Your task to perform on an android device: What's the weather like in Chicago? Image 0: 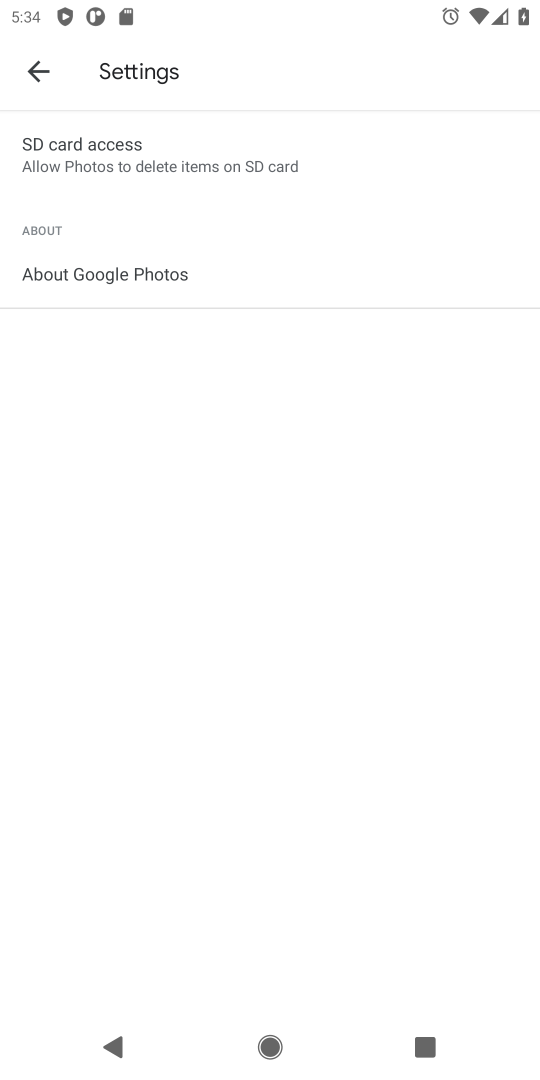
Step 0: press home button
Your task to perform on an android device: What's the weather like in Chicago? Image 1: 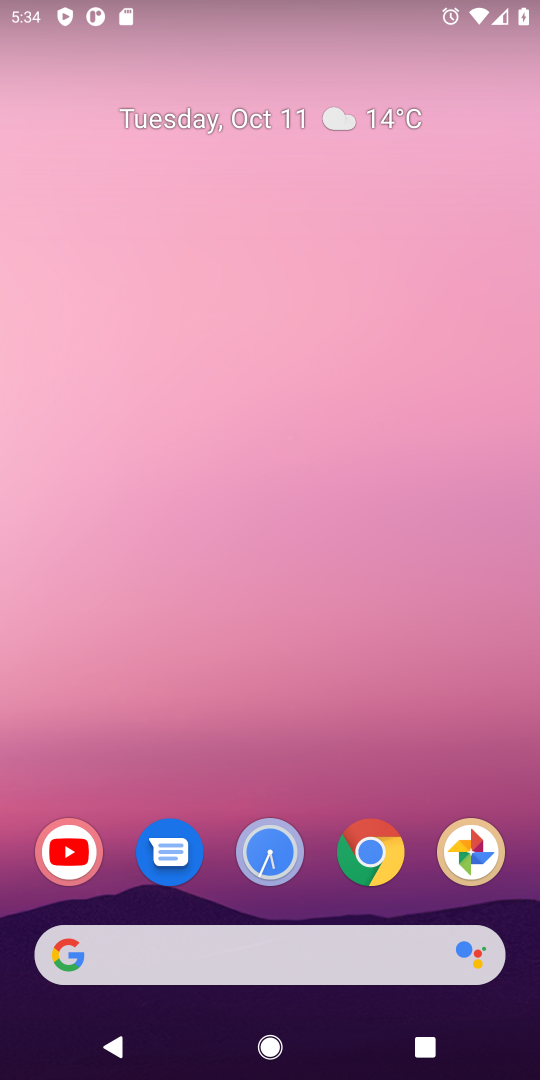
Step 1: click (391, 866)
Your task to perform on an android device: What's the weather like in Chicago? Image 2: 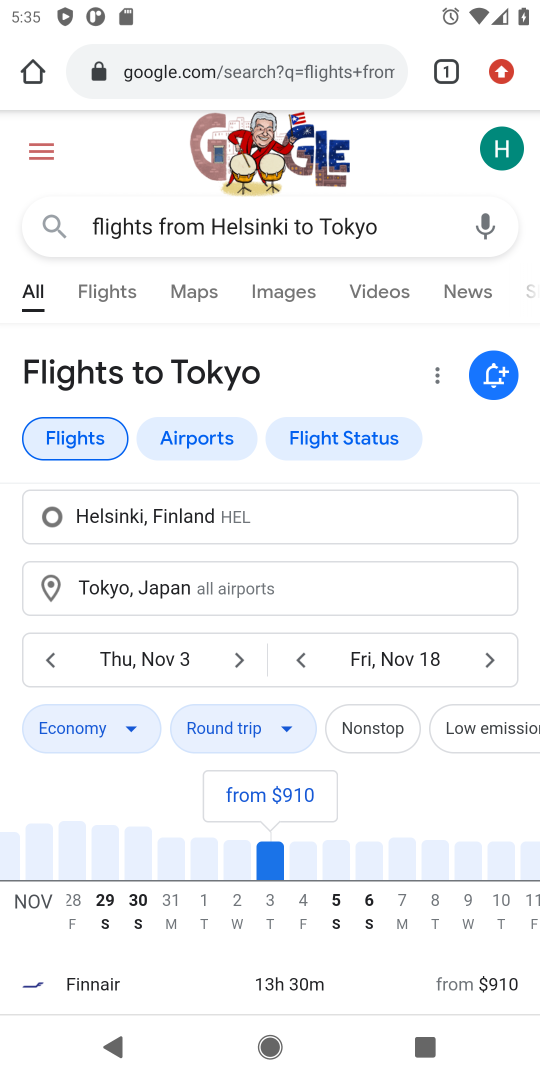
Step 2: click (257, 82)
Your task to perform on an android device: What's the weather like in Chicago? Image 3: 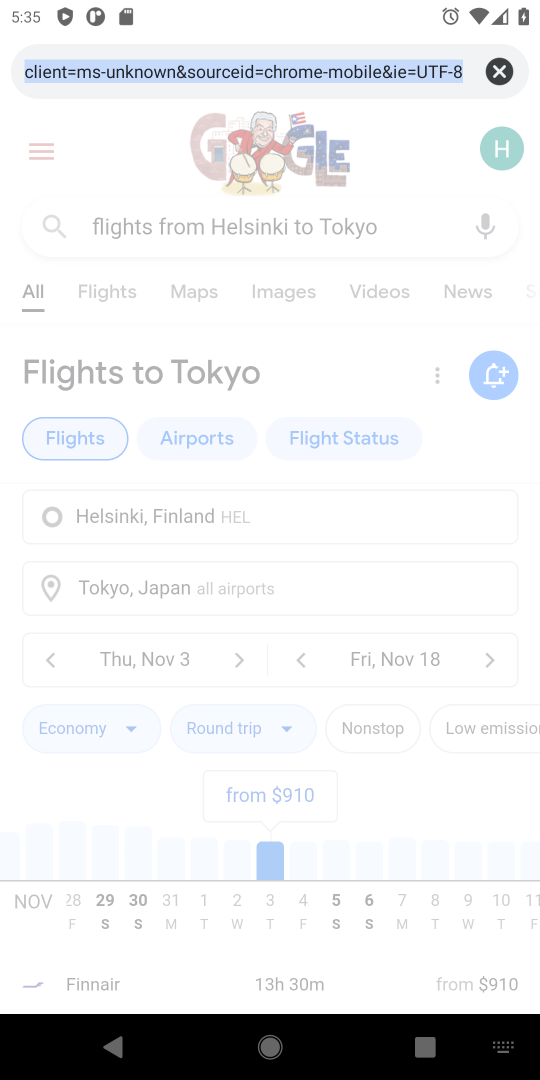
Step 3: type "What's the weather like in Chicago?"
Your task to perform on an android device: What's the weather like in Chicago? Image 4: 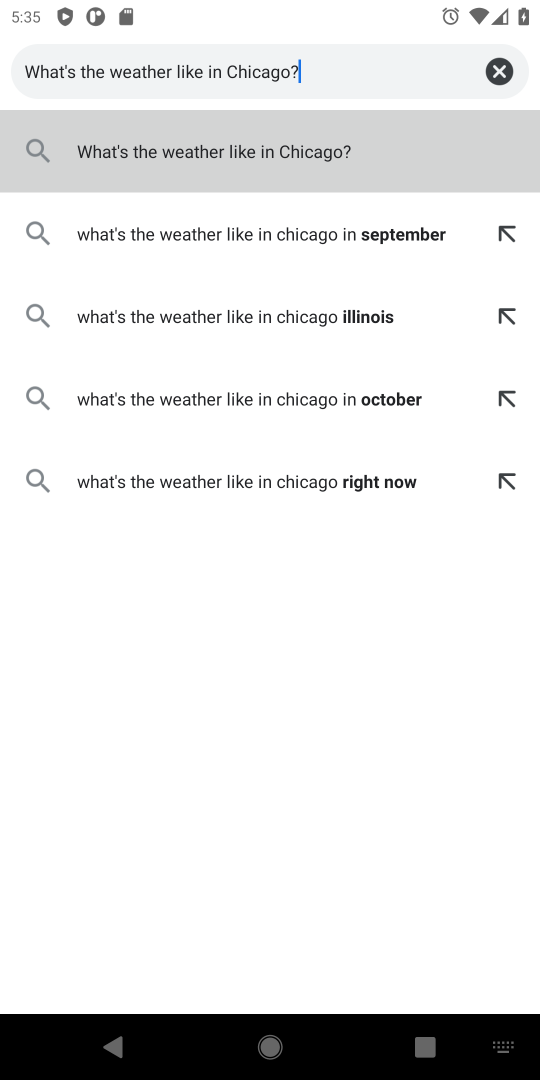
Step 4: click (385, 172)
Your task to perform on an android device: What's the weather like in Chicago? Image 5: 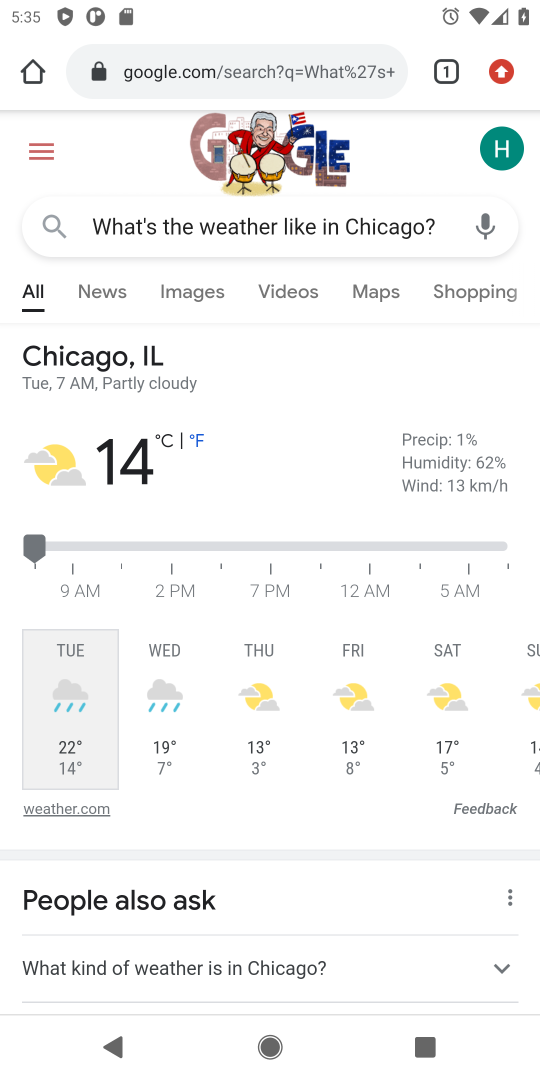
Step 5: task complete